Your task to perform on an android device: turn off picture-in-picture Image 0: 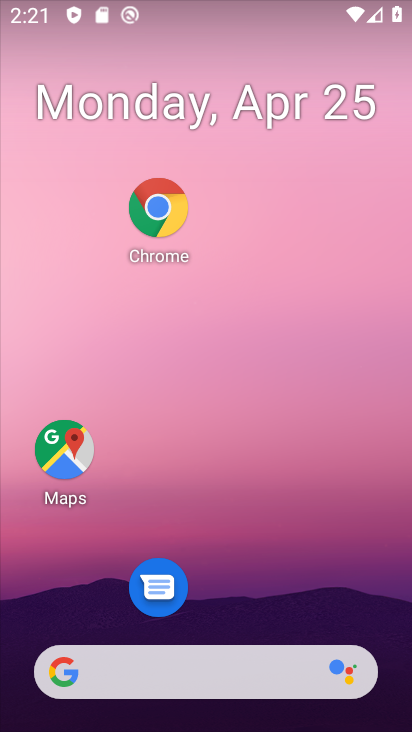
Step 0: click (185, 226)
Your task to perform on an android device: turn off picture-in-picture Image 1: 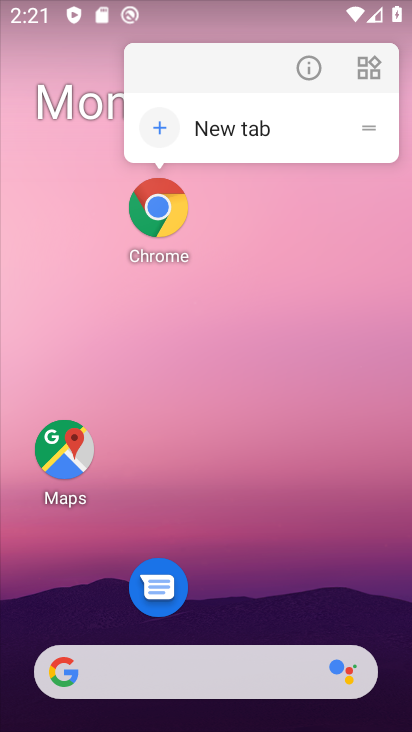
Step 1: click (184, 226)
Your task to perform on an android device: turn off picture-in-picture Image 2: 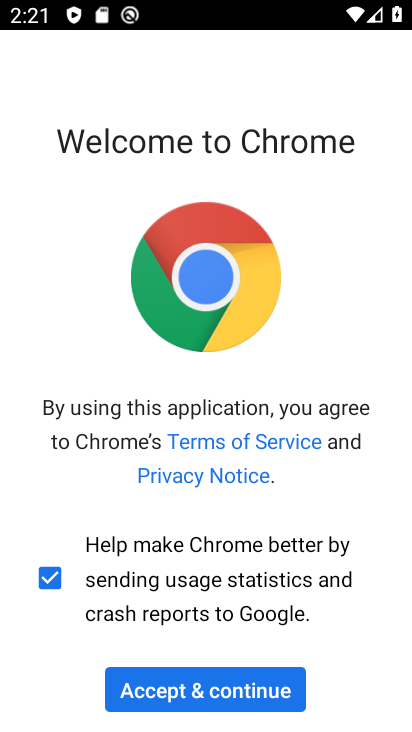
Step 2: click (249, 681)
Your task to perform on an android device: turn off picture-in-picture Image 3: 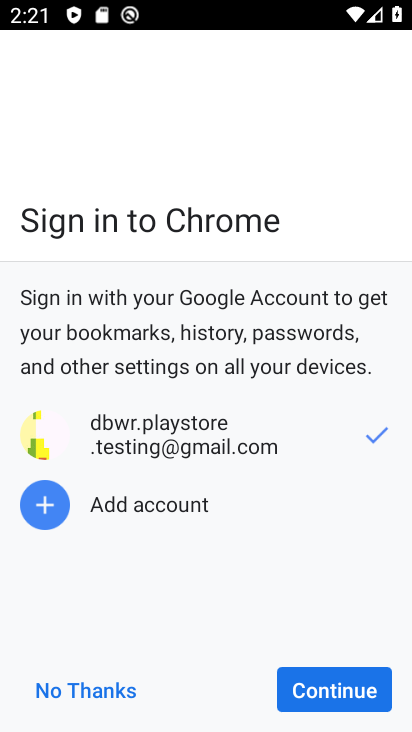
Step 3: click (337, 697)
Your task to perform on an android device: turn off picture-in-picture Image 4: 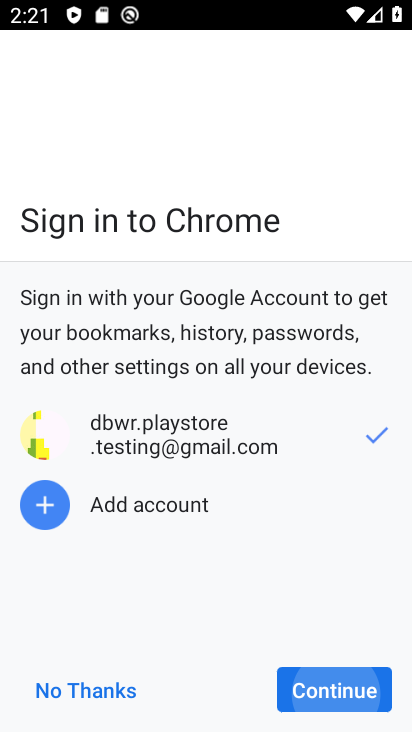
Step 4: click (337, 697)
Your task to perform on an android device: turn off picture-in-picture Image 5: 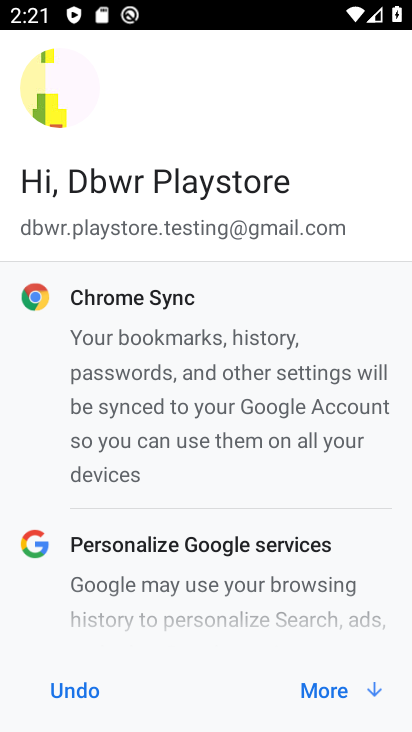
Step 5: click (337, 697)
Your task to perform on an android device: turn off picture-in-picture Image 6: 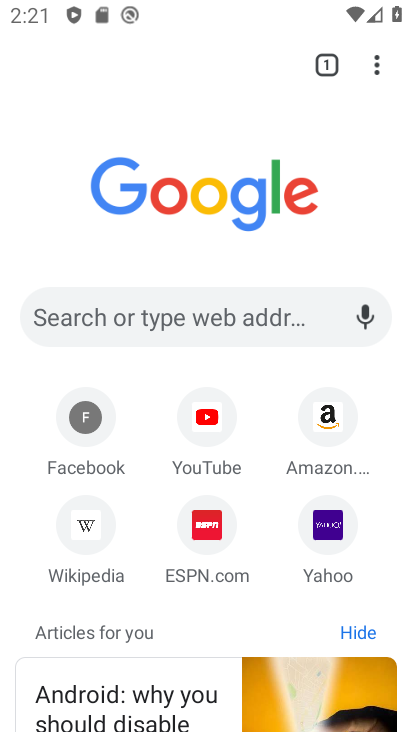
Step 6: press home button
Your task to perform on an android device: turn off picture-in-picture Image 7: 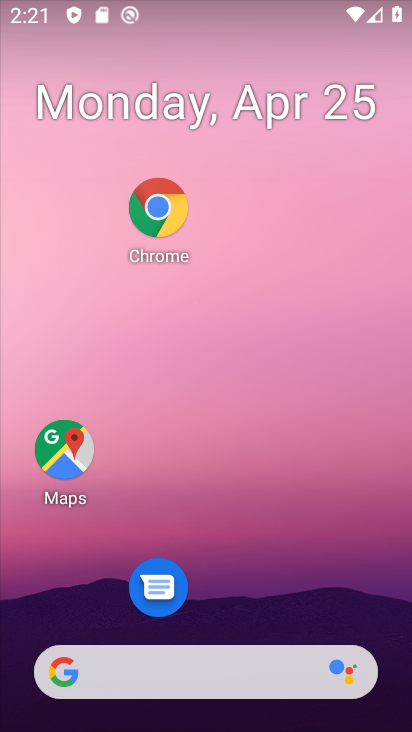
Step 7: click (165, 217)
Your task to perform on an android device: turn off picture-in-picture Image 8: 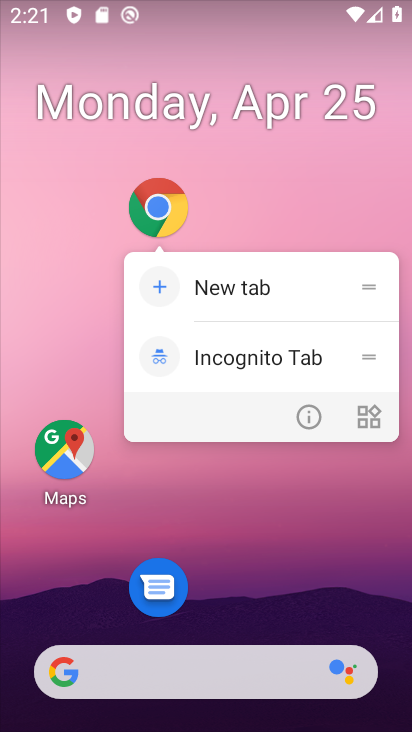
Step 8: click (298, 420)
Your task to perform on an android device: turn off picture-in-picture Image 9: 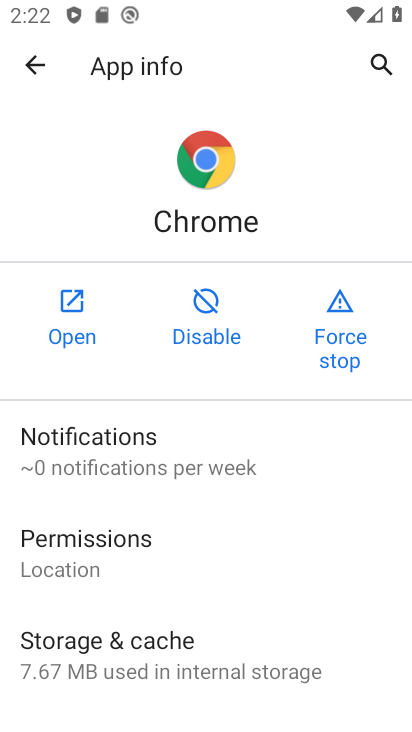
Step 9: drag from (195, 579) to (219, 330)
Your task to perform on an android device: turn off picture-in-picture Image 10: 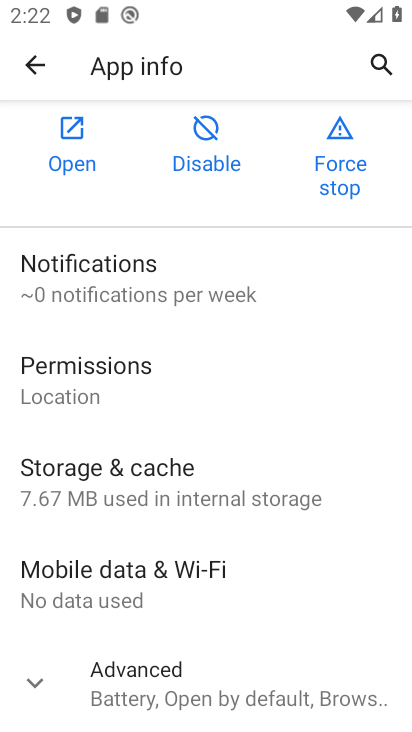
Step 10: drag from (235, 638) to (284, 510)
Your task to perform on an android device: turn off picture-in-picture Image 11: 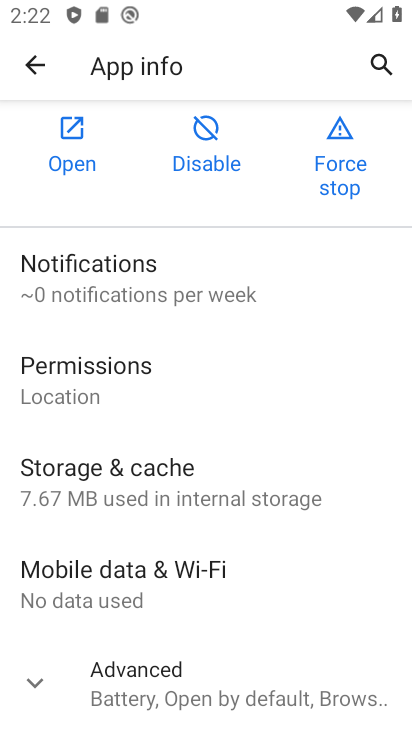
Step 11: click (191, 693)
Your task to perform on an android device: turn off picture-in-picture Image 12: 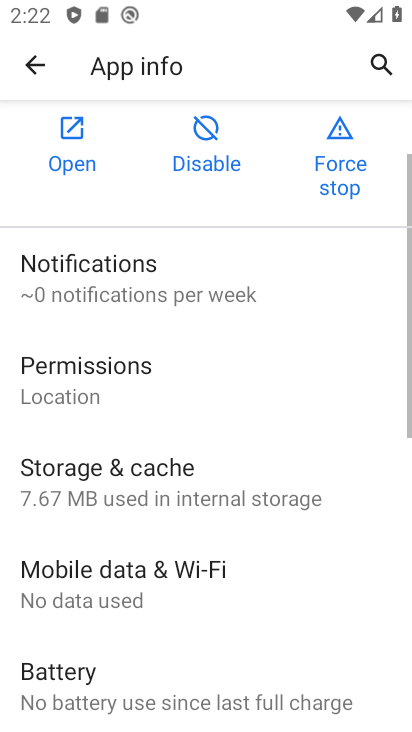
Step 12: drag from (191, 693) to (157, 416)
Your task to perform on an android device: turn off picture-in-picture Image 13: 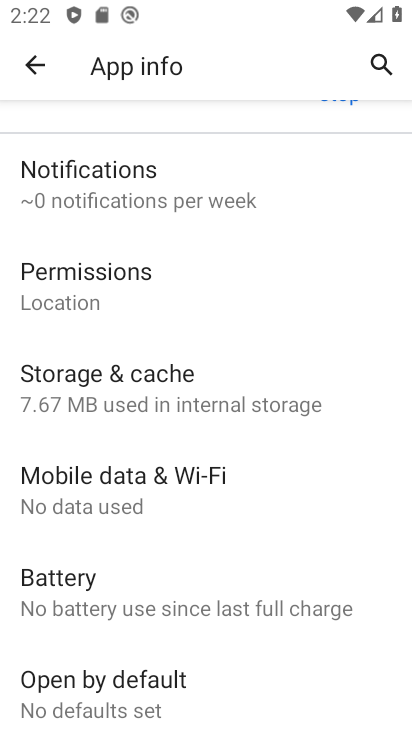
Step 13: drag from (240, 599) to (213, 308)
Your task to perform on an android device: turn off picture-in-picture Image 14: 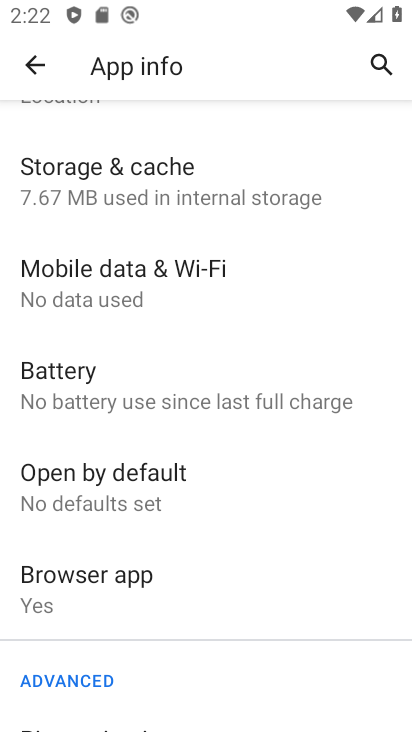
Step 14: drag from (229, 580) to (233, 428)
Your task to perform on an android device: turn off picture-in-picture Image 15: 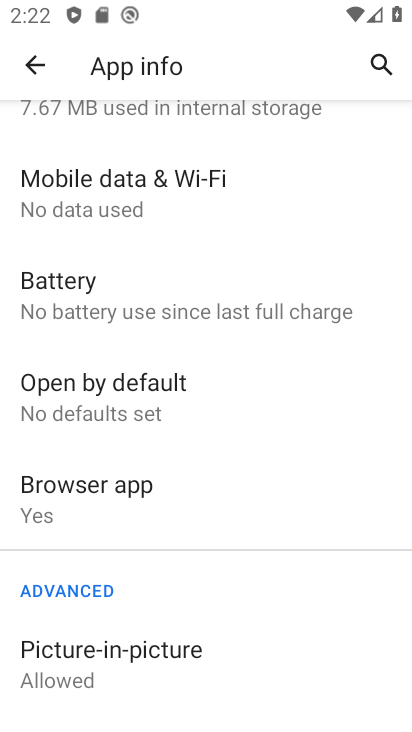
Step 15: click (210, 649)
Your task to perform on an android device: turn off picture-in-picture Image 16: 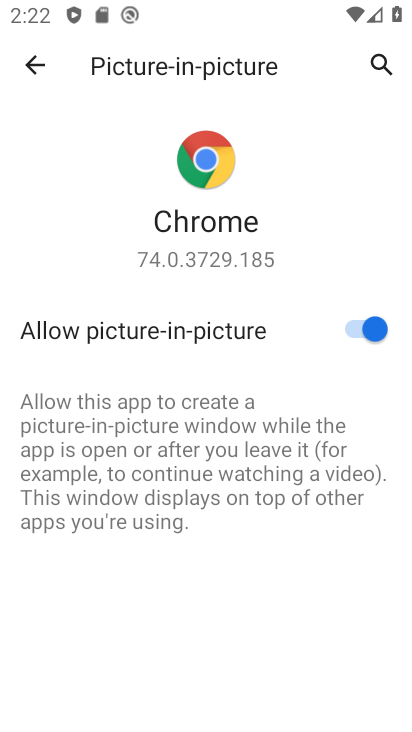
Step 16: click (320, 343)
Your task to perform on an android device: turn off picture-in-picture Image 17: 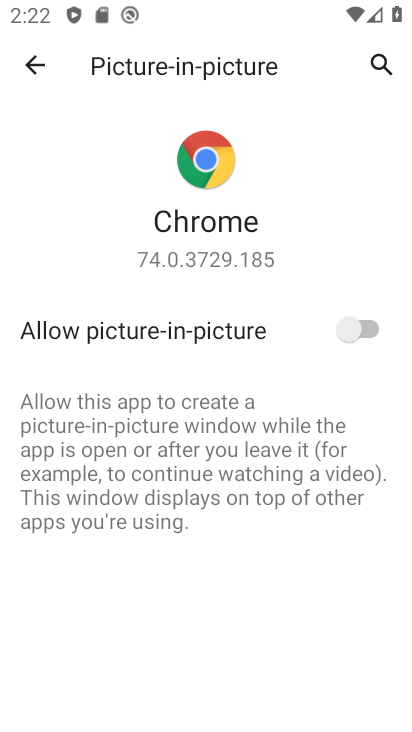
Step 17: task complete